Your task to perform on an android device: check storage Image 0: 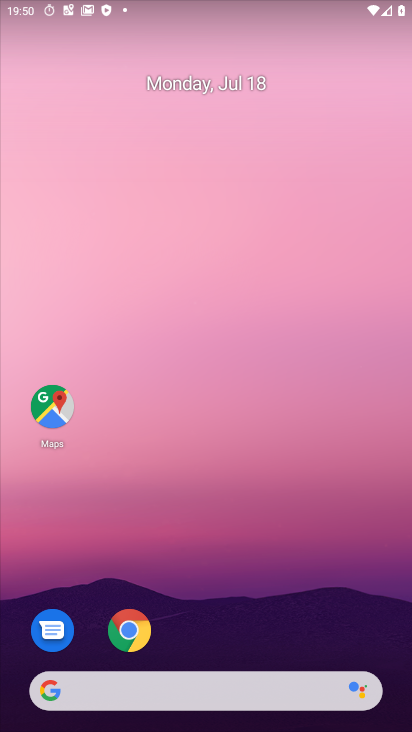
Step 0: drag from (281, 598) to (400, 2)
Your task to perform on an android device: check storage Image 1: 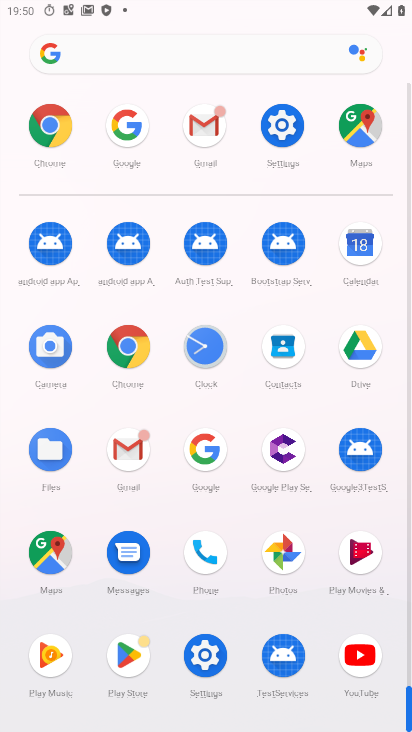
Step 1: click (280, 119)
Your task to perform on an android device: check storage Image 2: 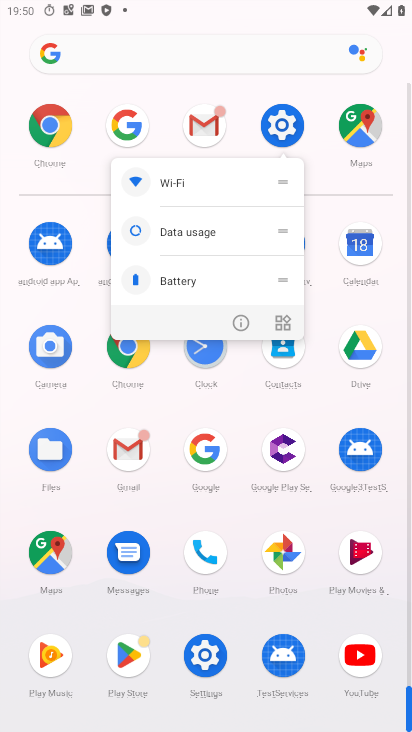
Step 2: click (279, 148)
Your task to perform on an android device: check storage Image 3: 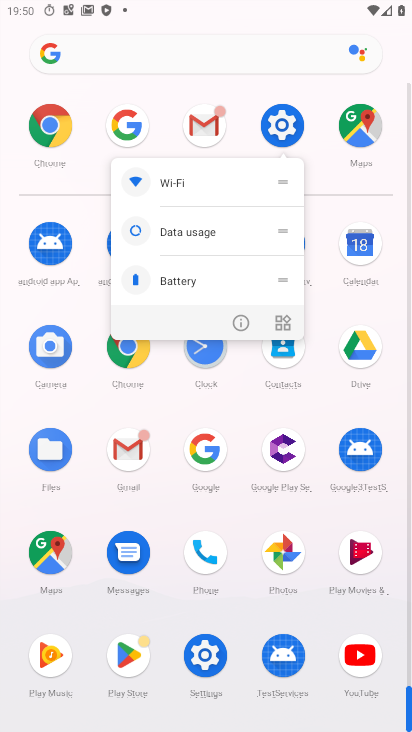
Step 3: click (271, 111)
Your task to perform on an android device: check storage Image 4: 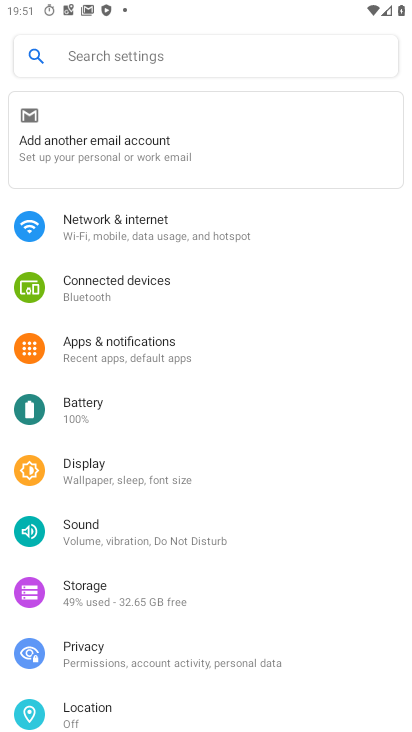
Step 4: click (134, 595)
Your task to perform on an android device: check storage Image 5: 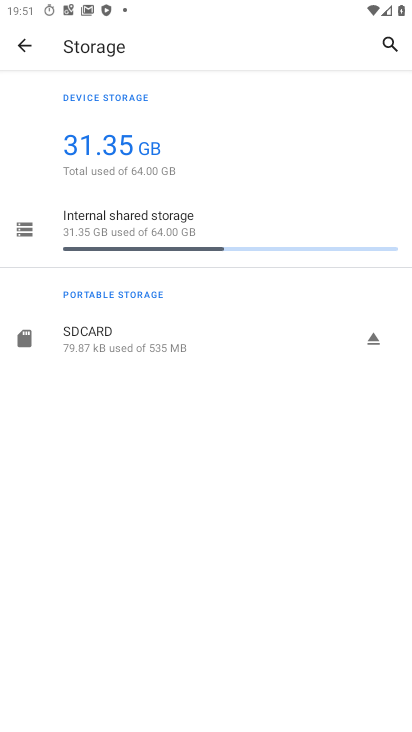
Step 5: click (102, 245)
Your task to perform on an android device: check storage Image 6: 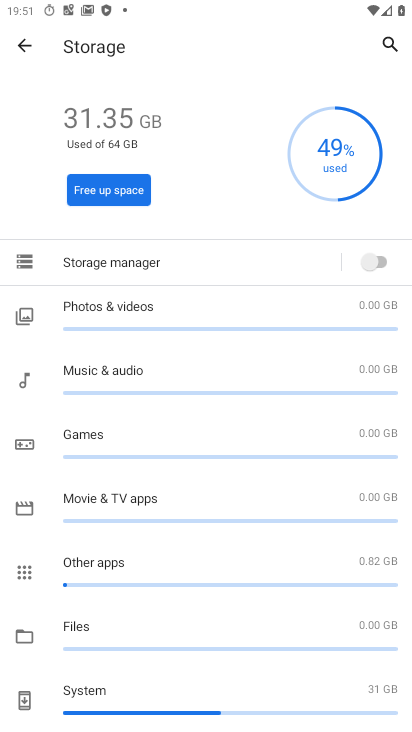
Step 6: task complete